Your task to perform on an android device: open the mobile data screen to see how much data has been used Image 0: 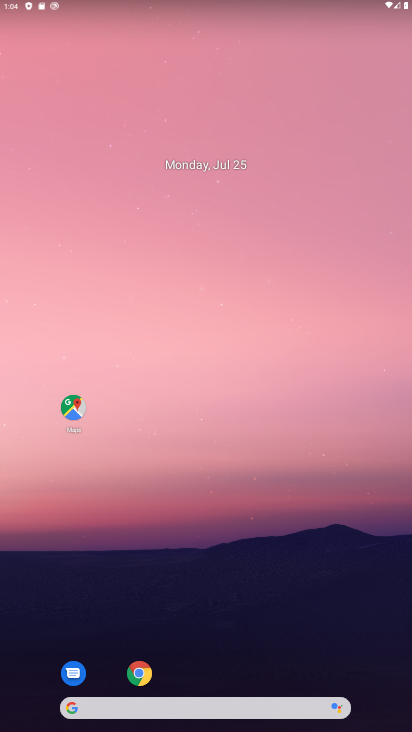
Step 0: drag from (384, 687) to (361, 138)
Your task to perform on an android device: open the mobile data screen to see how much data has been used Image 1: 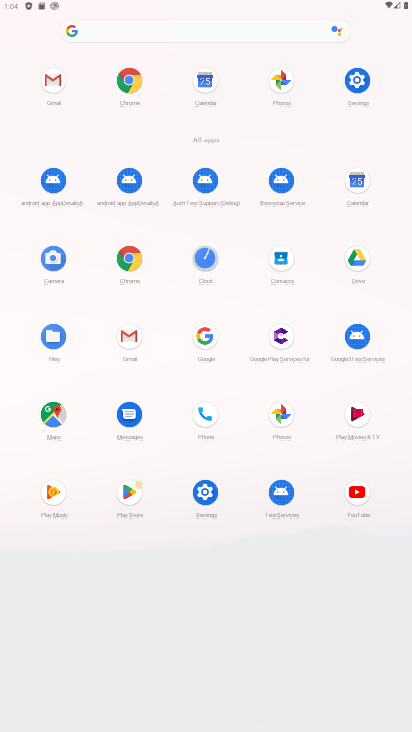
Step 1: click (206, 489)
Your task to perform on an android device: open the mobile data screen to see how much data has been used Image 2: 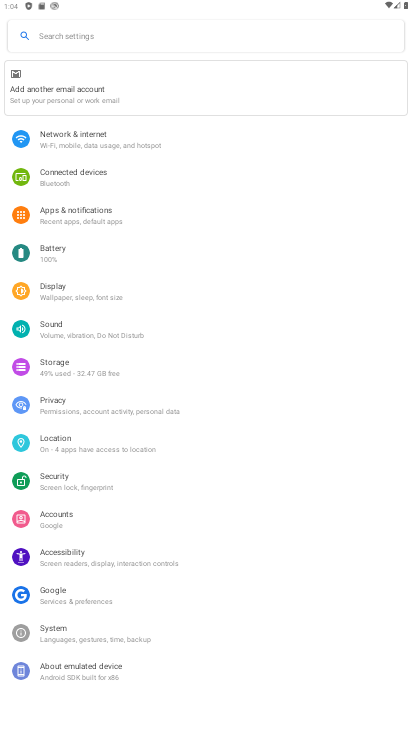
Step 2: click (64, 134)
Your task to perform on an android device: open the mobile data screen to see how much data has been used Image 3: 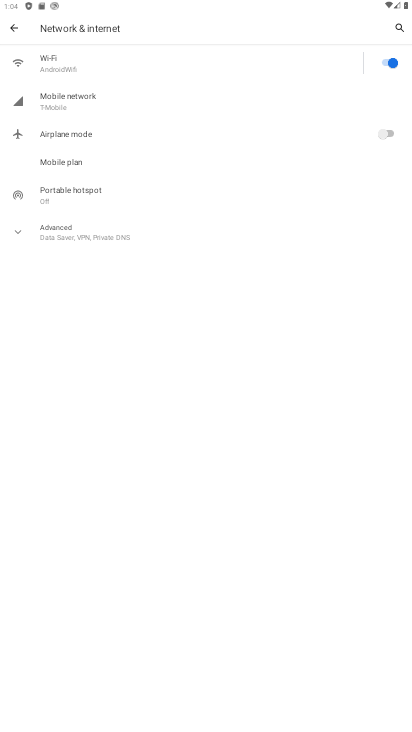
Step 3: click (62, 99)
Your task to perform on an android device: open the mobile data screen to see how much data has been used Image 4: 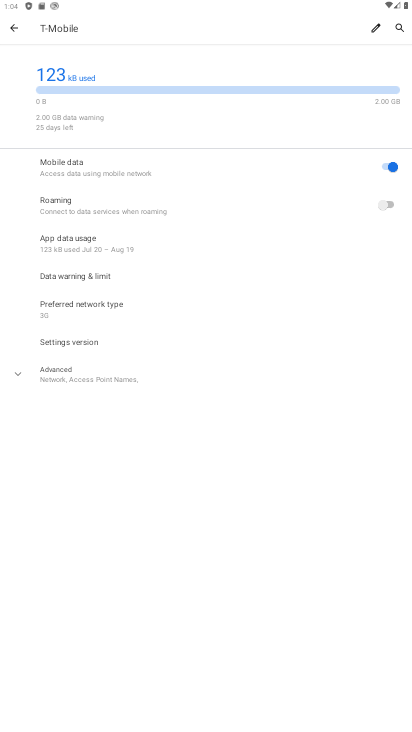
Step 4: task complete